Your task to perform on an android device: Open wifi settings Image 0: 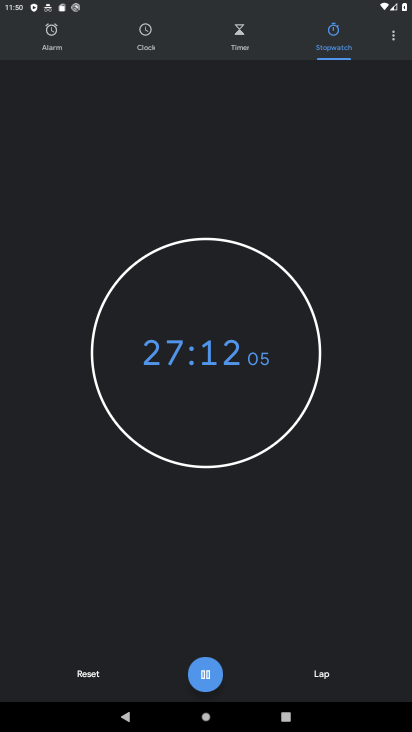
Step 0: press home button
Your task to perform on an android device: Open wifi settings Image 1: 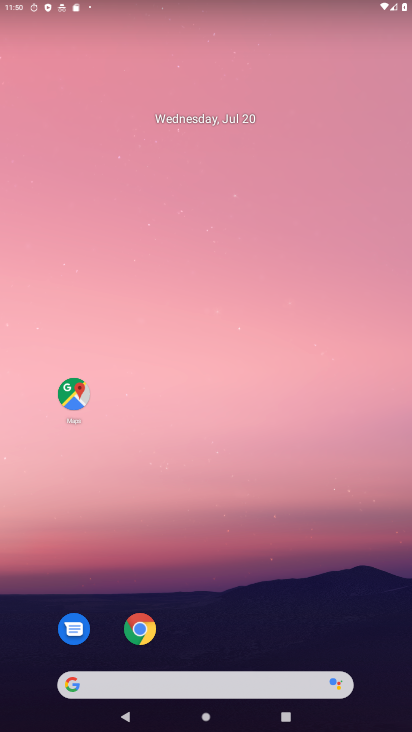
Step 1: drag from (257, 663) to (364, 50)
Your task to perform on an android device: Open wifi settings Image 2: 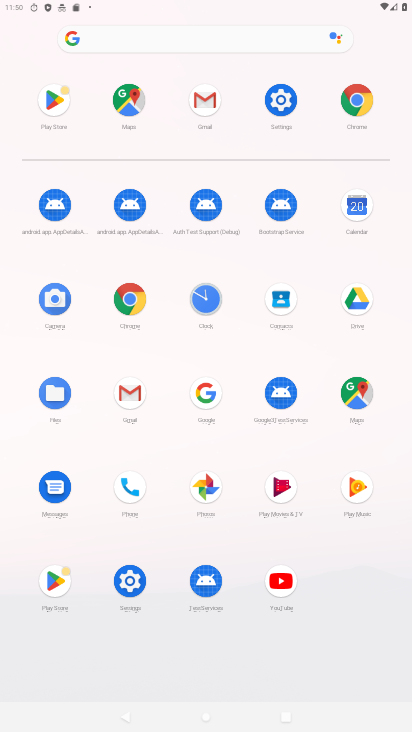
Step 2: click (274, 99)
Your task to perform on an android device: Open wifi settings Image 3: 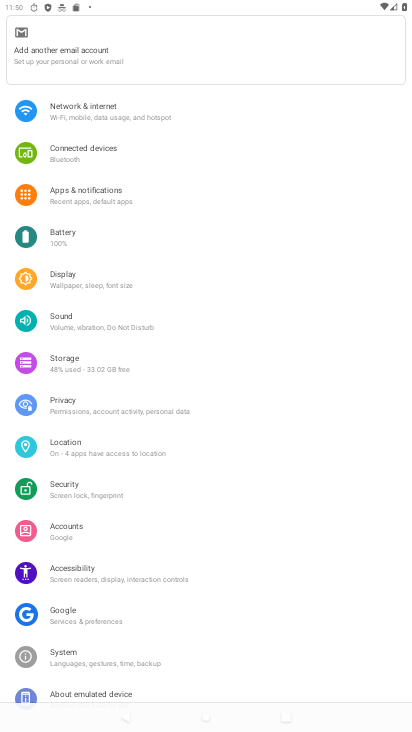
Step 3: click (86, 110)
Your task to perform on an android device: Open wifi settings Image 4: 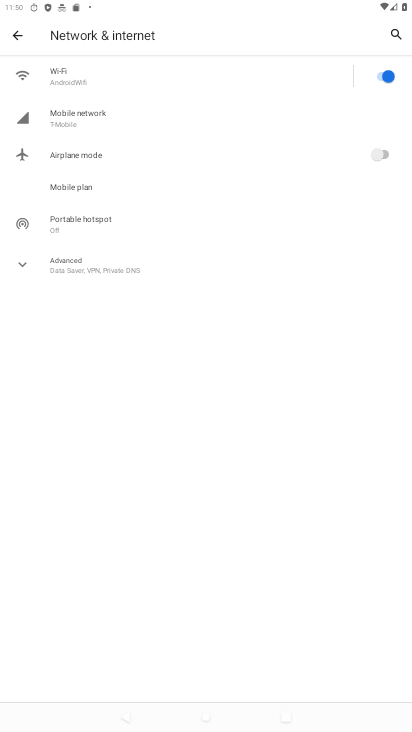
Step 4: click (95, 74)
Your task to perform on an android device: Open wifi settings Image 5: 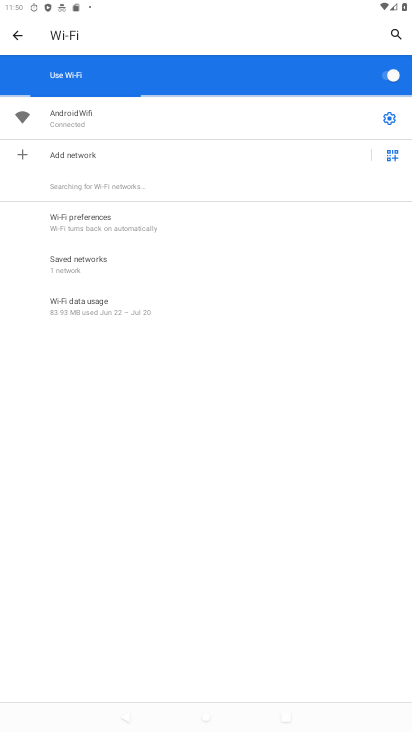
Step 5: task complete